Your task to perform on an android device: turn smart compose on in the gmail app Image 0: 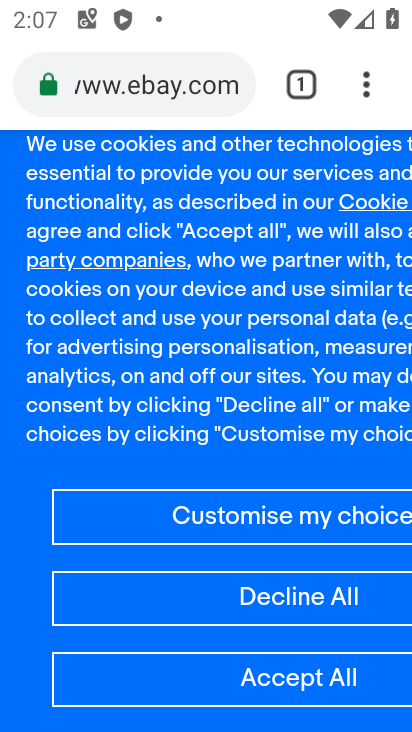
Step 0: press home button
Your task to perform on an android device: turn smart compose on in the gmail app Image 1: 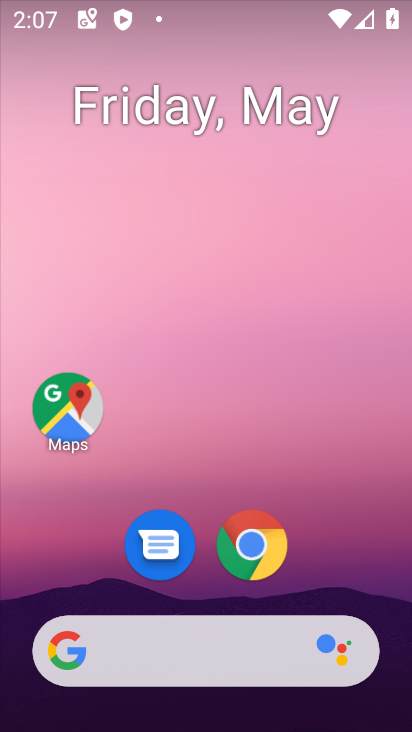
Step 1: drag from (66, 539) to (140, 187)
Your task to perform on an android device: turn smart compose on in the gmail app Image 2: 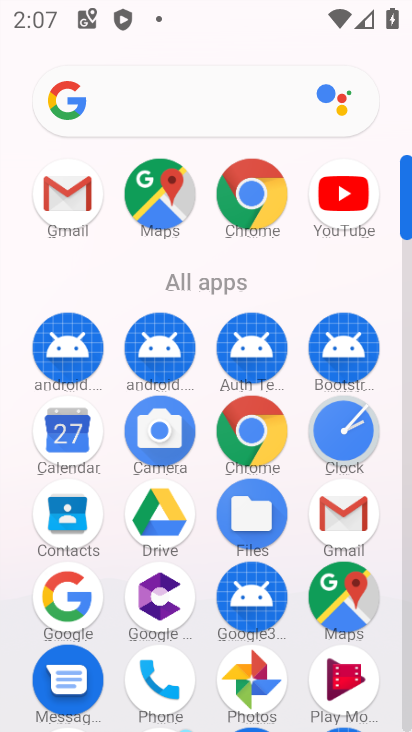
Step 2: drag from (155, 596) to (231, 362)
Your task to perform on an android device: turn smart compose on in the gmail app Image 3: 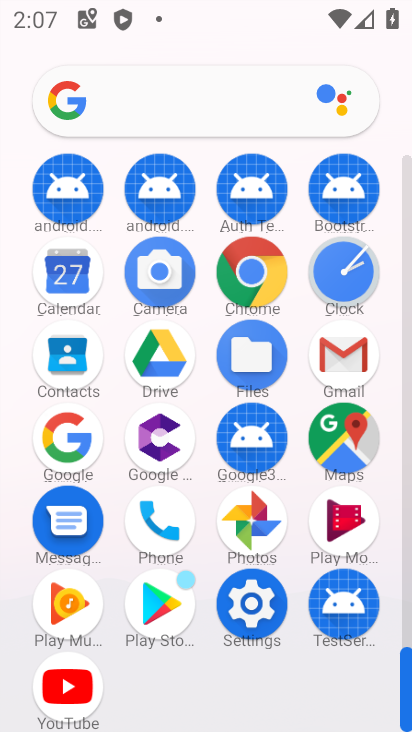
Step 3: click (358, 367)
Your task to perform on an android device: turn smart compose on in the gmail app Image 4: 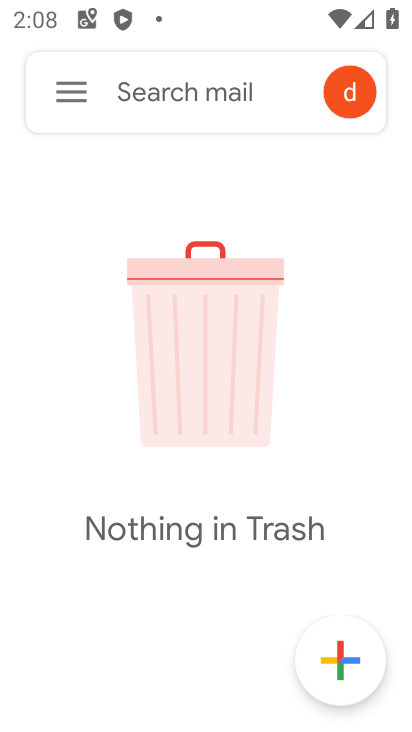
Step 4: click (80, 115)
Your task to perform on an android device: turn smart compose on in the gmail app Image 5: 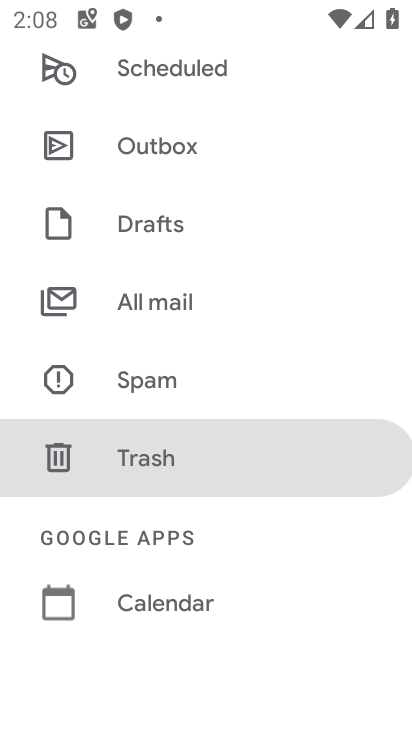
Step 5: drag from (156, 636) to (279, 295)
Your task to perform on an android device: turn smart compose on in the gmail app Image 6: 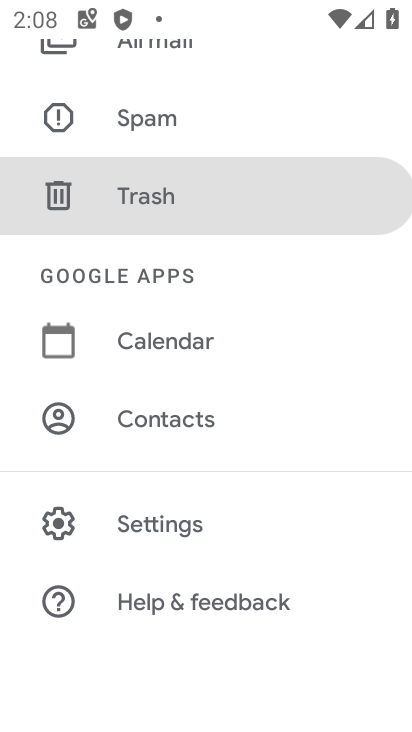
Step 6: click (205, 521)
Your task to perform on an android device: turn smart compose on in the gmail app Image 7: 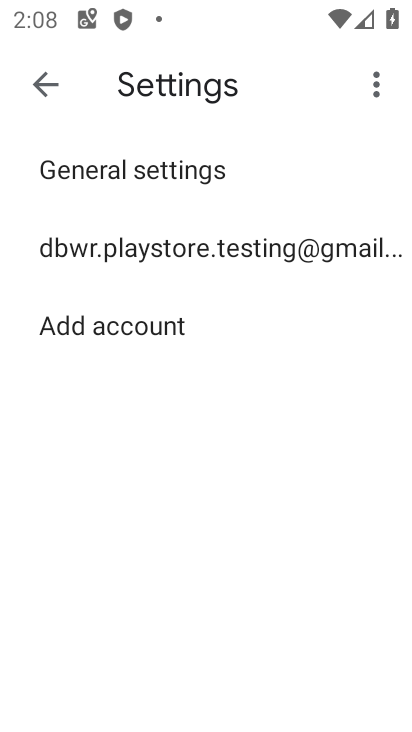
Step 7: click (236, 245)
Your task to perform on an android device: turn smart compose on in the gmail app Image 8: 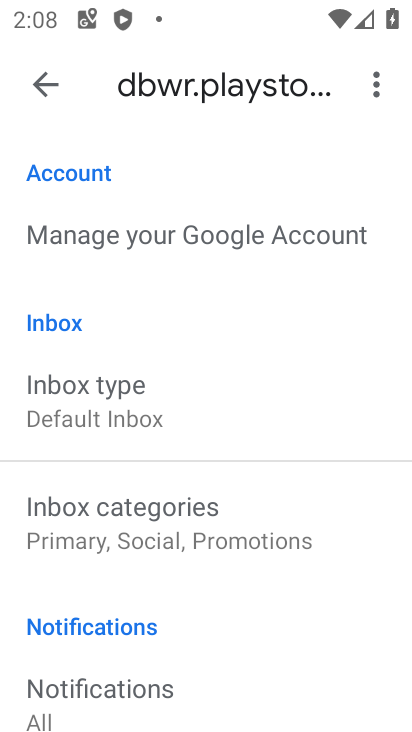
Step 8: task complete